Your task to perform on an android device: Search for "razer blackwidow" on amazon, select the first entry, and add it to the cart. Image 0: 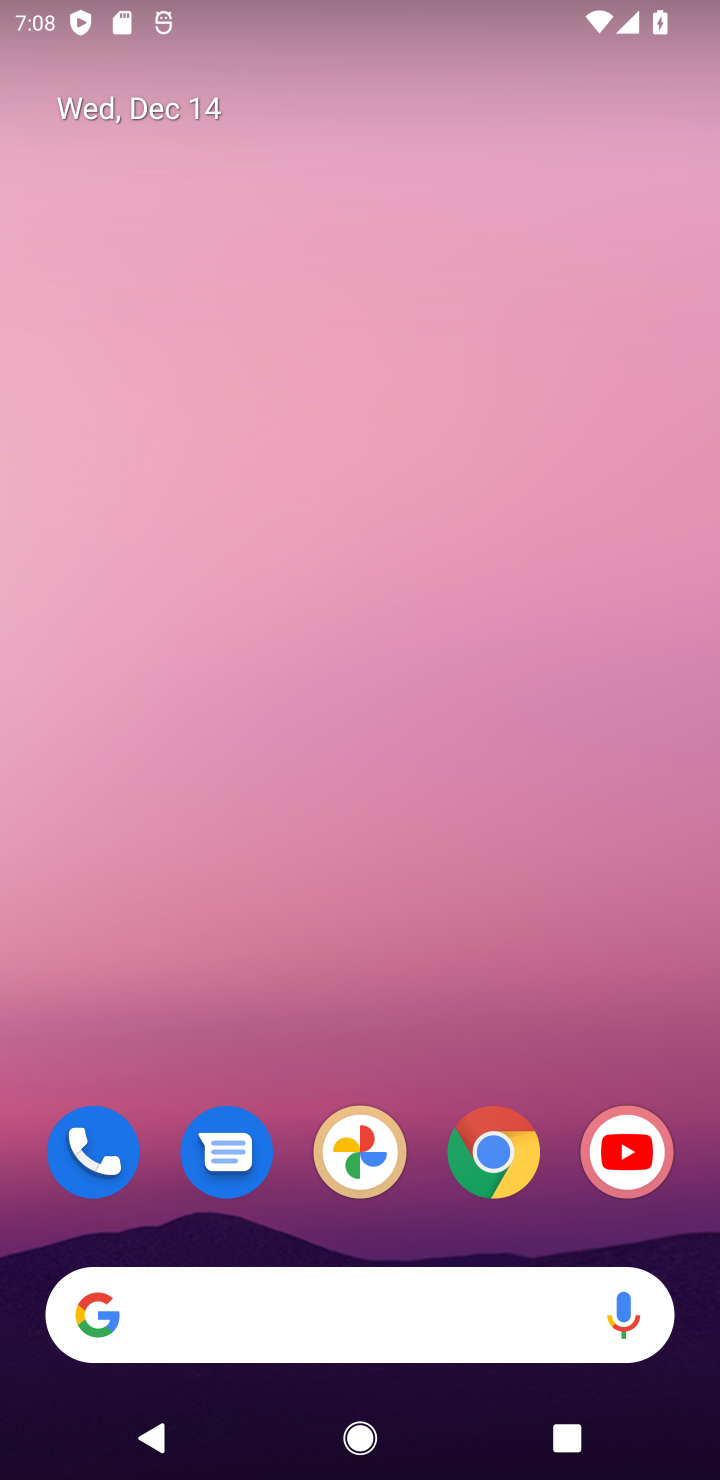
Step 0: click (504, 1154)
Your task to perform on an android device: Search for "razer blackwidow" on amazon, select the first entry, and add it to the cart. Image 1: 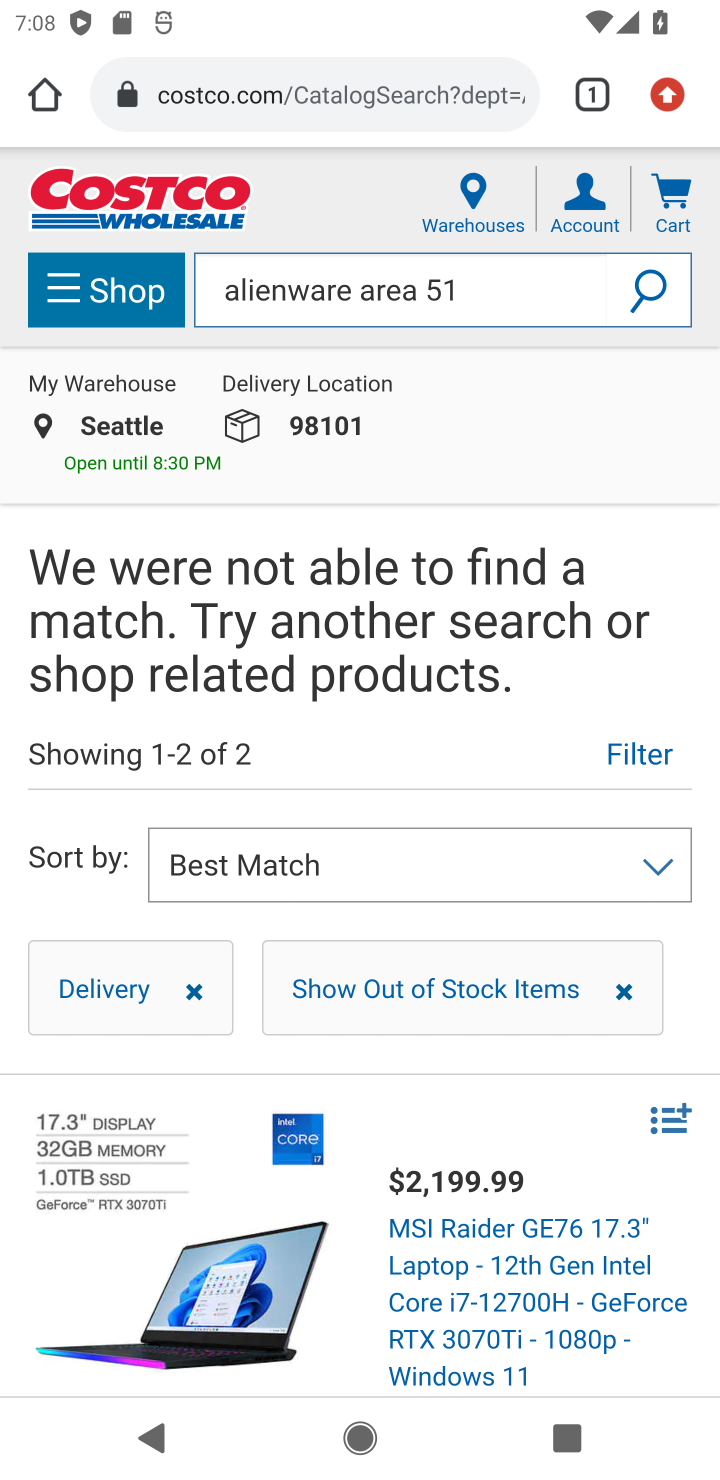
Step 1: click (285, 108)
Your task to perform on an android device: Search for "razer blackwidow" on amazon, select the first entry, and add it to the cart. Image 2: 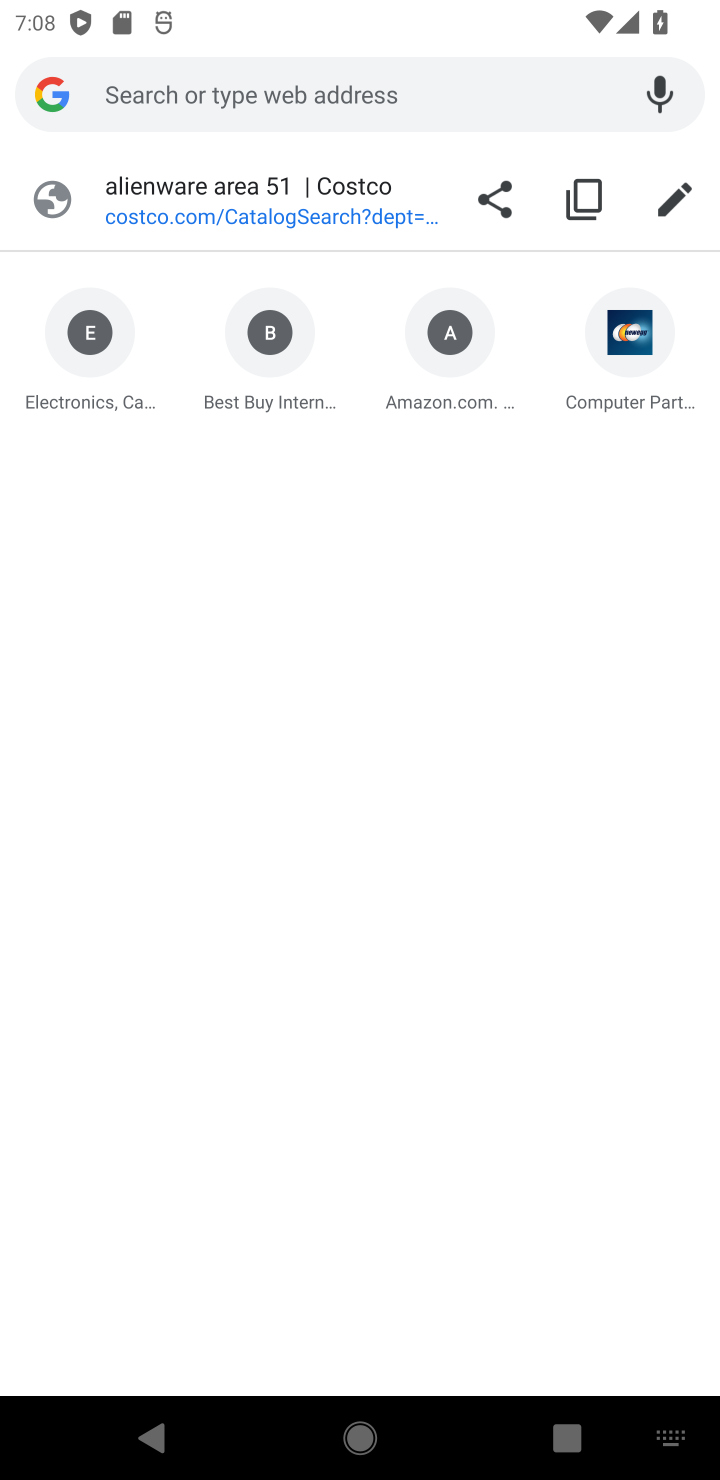
Step 2: click (426, 343)
Your task to perform on an android device: Search for "razer blackwidow" on amazon, select the first entry, and add it to the cart. Image 3: 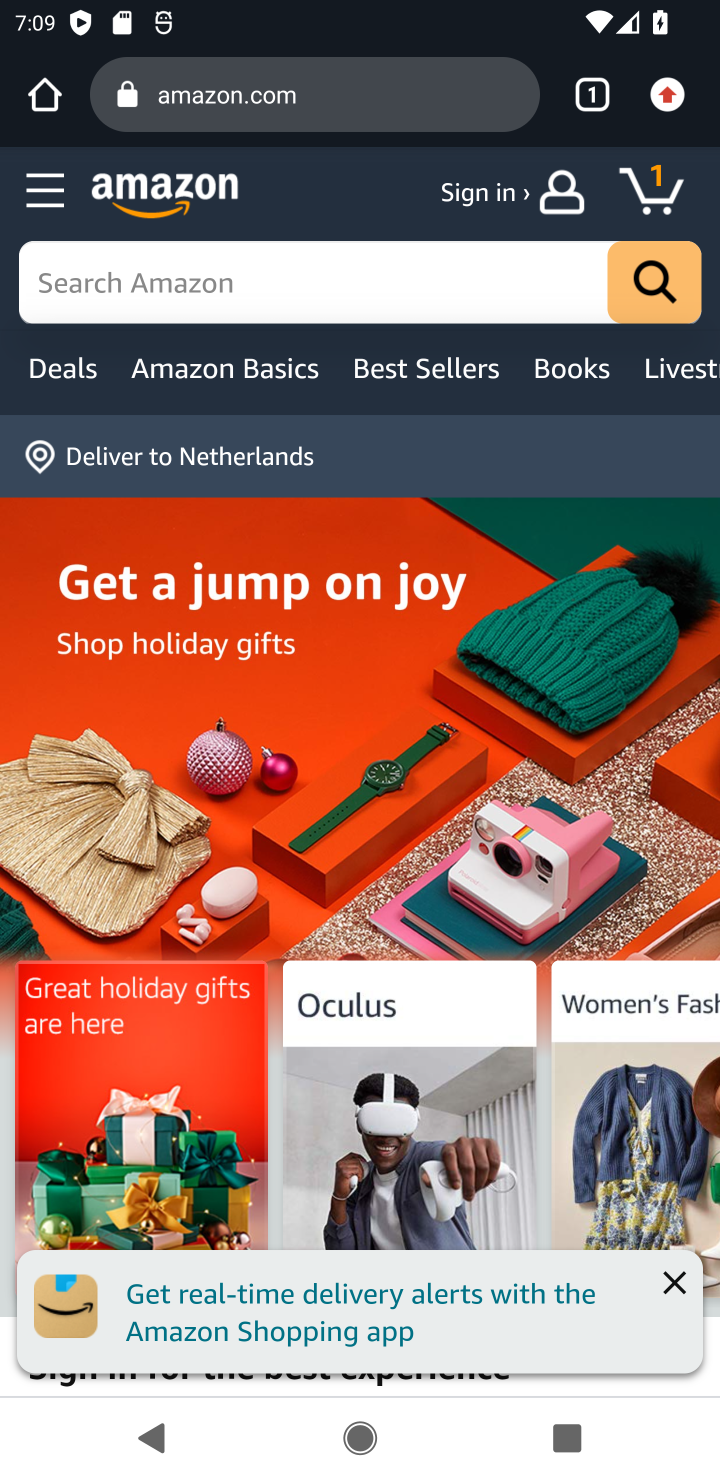
Step 3: click (74, 294)
Your task to perform on an android device: Search for "razer blackwidow" on amazon, select the first entry, and add it to the cart. Image 4: 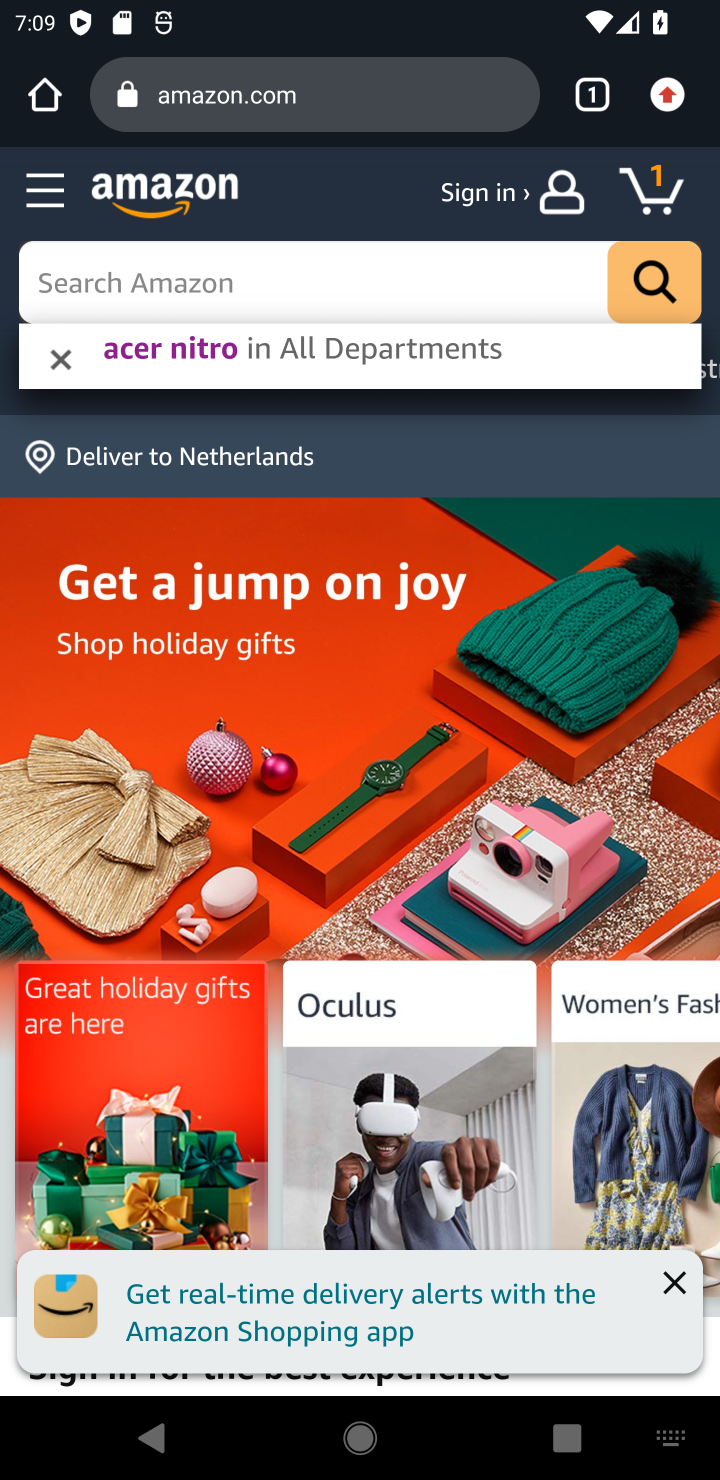
Step 4: type "razer blackwidow"
Your task to perform on an android device: Search for "razer blackwidow" on amazon, select the first entry, and add it to the cart. Image 5: 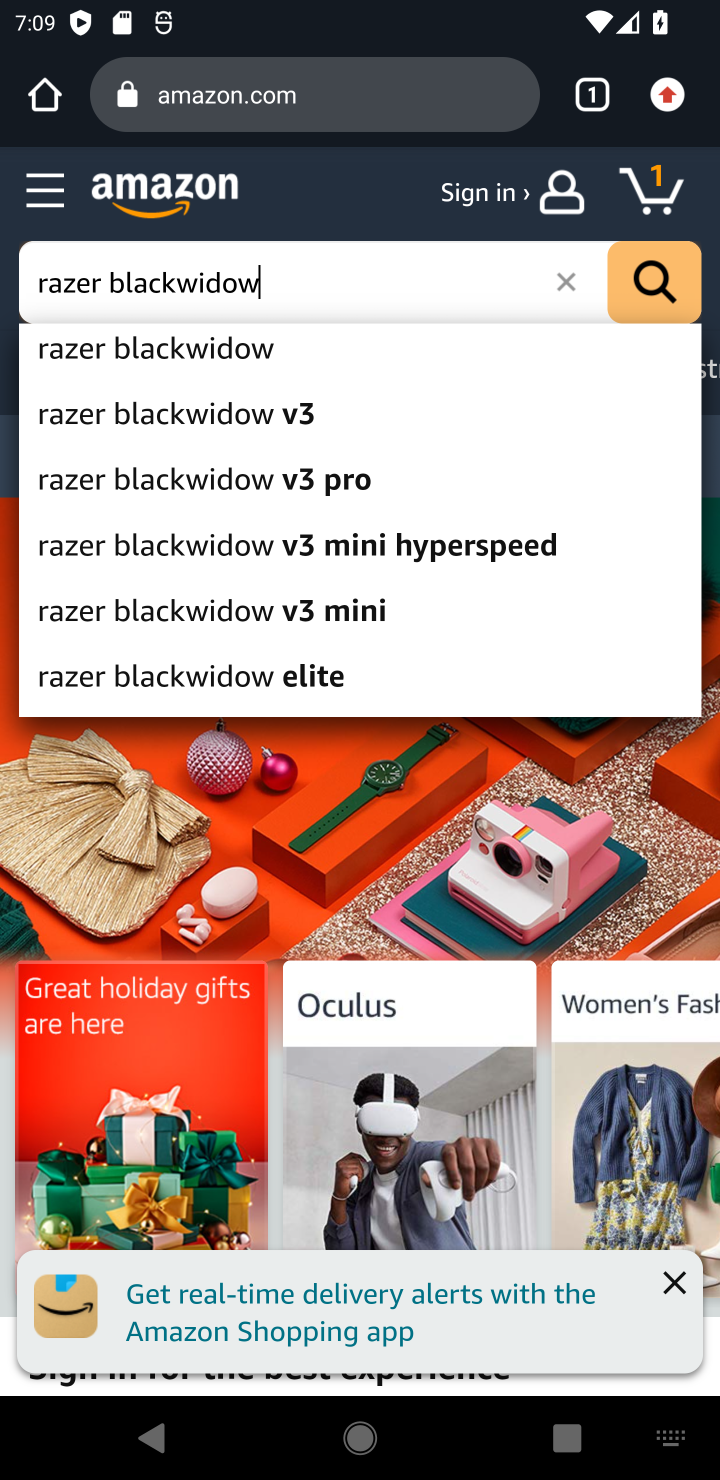
Step 5: click (221, 361)
Your task to perform on an android device: Search for "razer blackwidow" on amazon, select the first entry, and add it to the cart. Image 6: 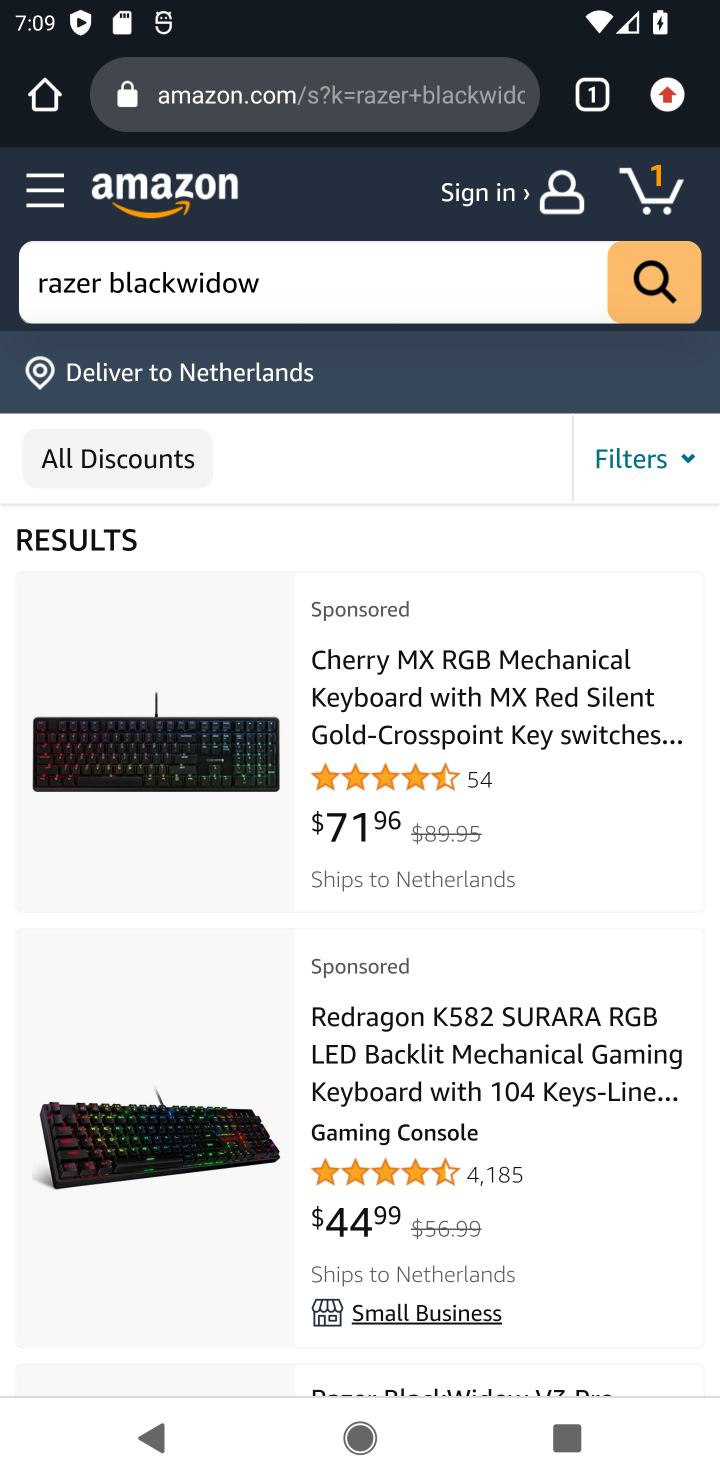
Step 6: task complete